Your task to perform on an android device: check data usage Image 0: 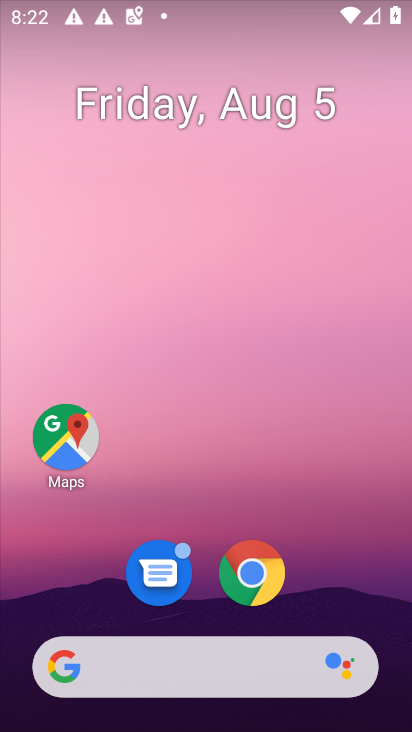
Step 0: drag from (205, 670) to (209, 32)
Your task to perform on an android device: check data usage Image 1: 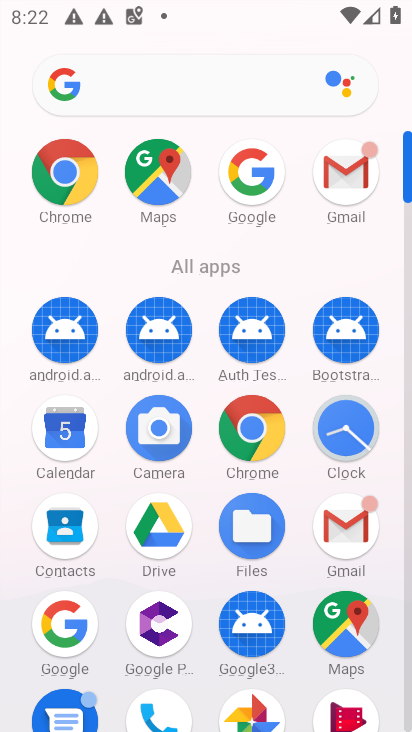
Step 1: drag from (207, 616) to (207, 395)
Your task to perform on an android device: check data usage Image 2: 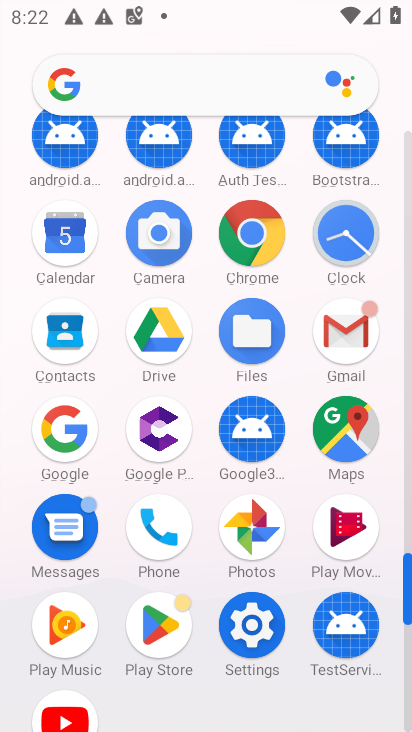
Step 2: click (253, 626)
Your task to perform on an android device: check data usage Image 3: 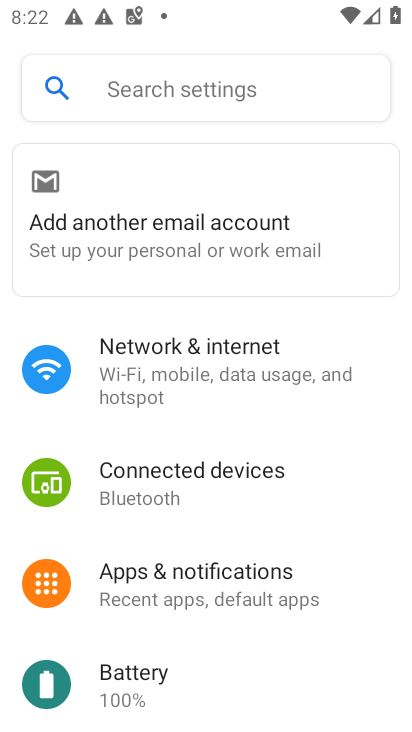
Step 3: click (191, 362)
Your task to perform on an android device: check data usage Image 4: 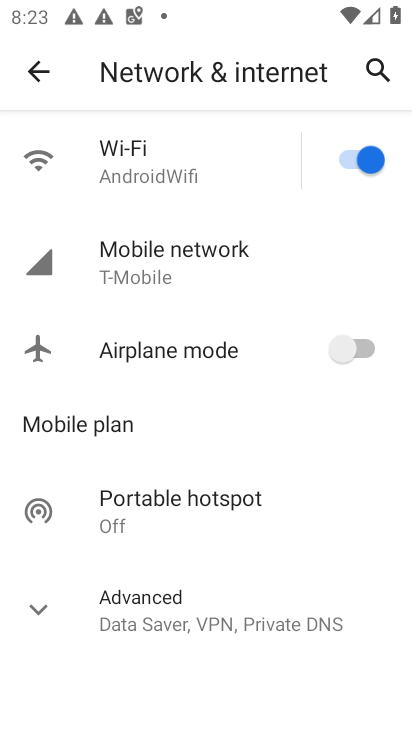
Step 4: click (211, 255)
Your task to perform on an android device: check data usage Image 5: 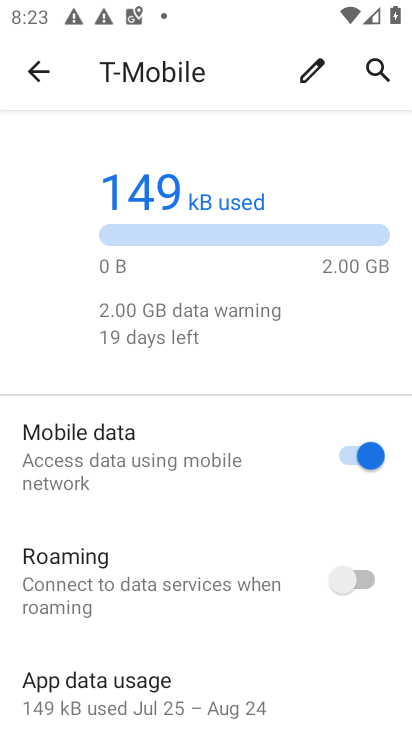
Step 5: task complete